Your task to perform on an android device: Open Maps and search for coffee Image 0: 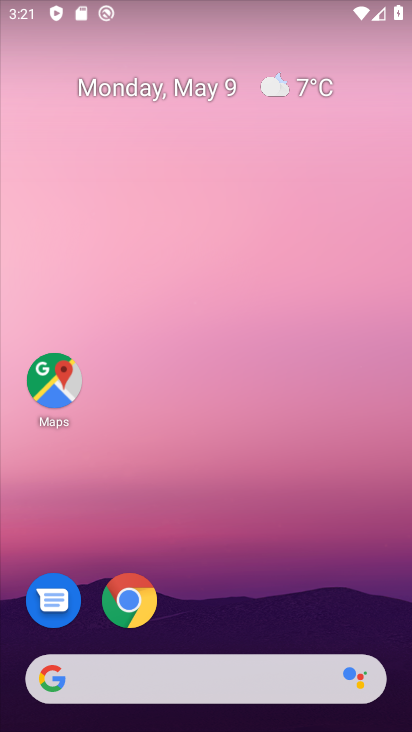
Step 0: drag from (401, 604) to (325, 37)
Your task to perform on an android device: Open Maps and search for coffee Image 1: 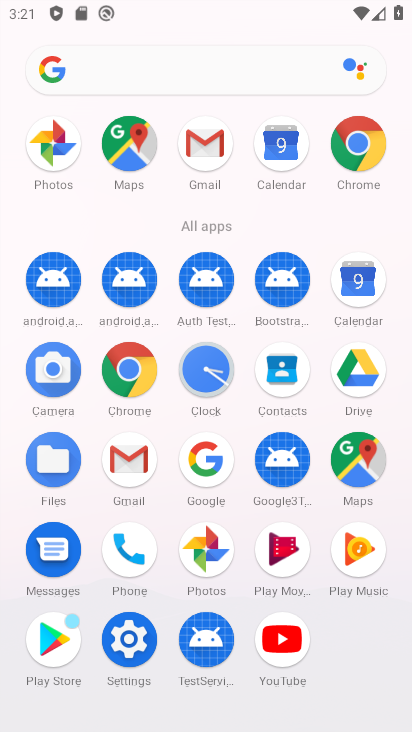
Step 1: click (360, 452)
Your task to perform on an android device: Open Maps and search for coffee Image 2: 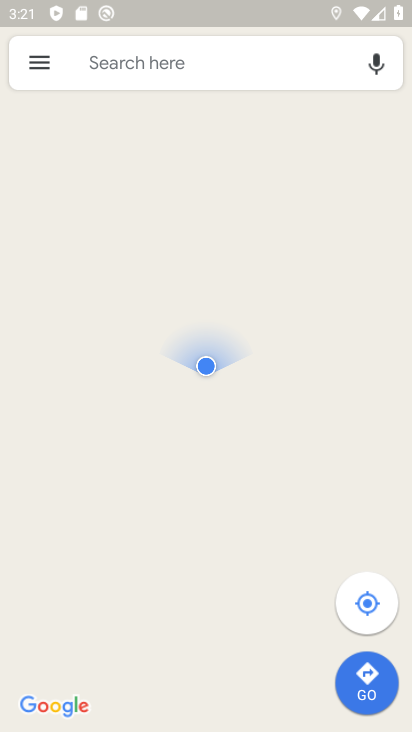
Step 2: click (216, 72)
Your task to perform on an android device: Open Maps and search for coffee Image 3: 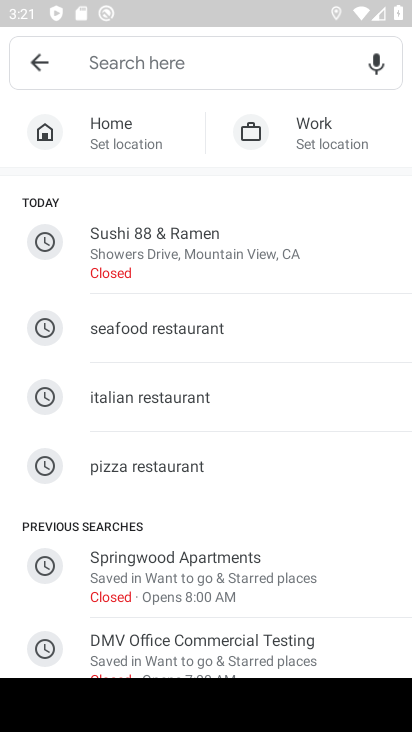
Step 3: type "coffee"
Your task to perform on an android device: Open Maps and search for coffee Image 4: 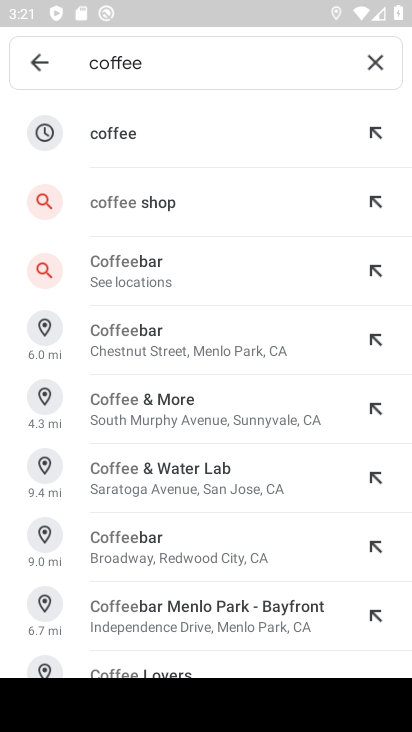
Step 4: click (121, 138)
Your task to perform on an android device: Open Maps and search for coffee Image 5: 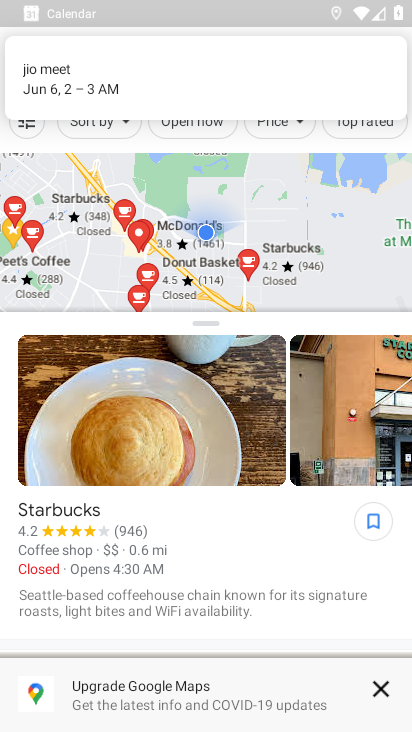
Step 5: task complete